Your task to perform on an android device: Search for "apple airpods pro" on costco, select the first entry, add it to the cart, then select checkout. Image 0: 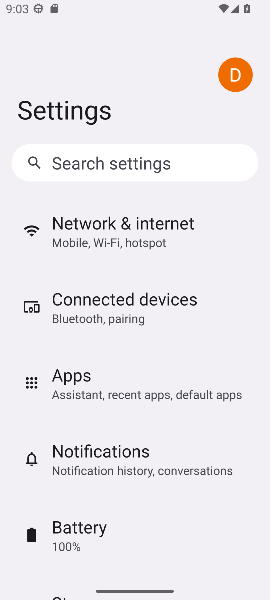
Step 0: press home button
Your task to perform on an android device: Search for "apple airpods pro" on costco, select the first entry, add it to the cart, then select checkout. Image 1: 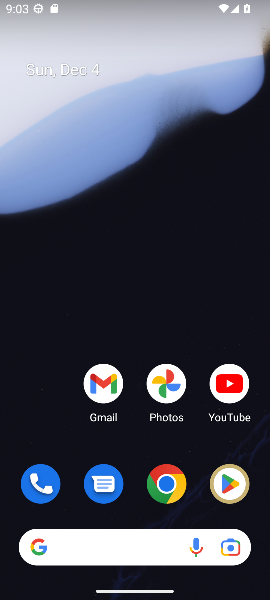
Step 1: click (166, 485)
Your task to perform on an android device: Search for "apple airpods pro" on costco, select the first entry, add it to the cart, then select checkout. Image 2: 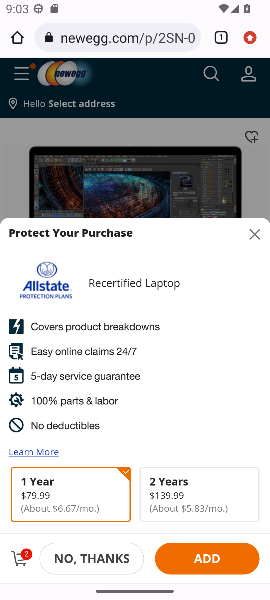
Step 2: click (117, 36)
Your task to perform on an android device: Search for "apple airpods pro" on costco, select the first entry, add it to the cart, then select checkout. Image 3: 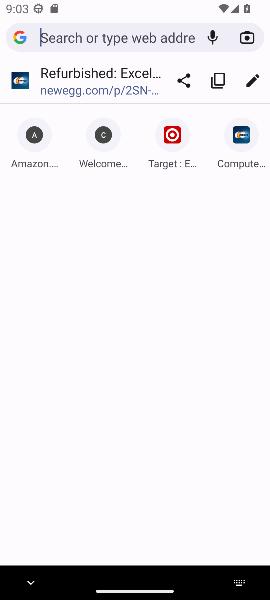
Step 3: type "costco.com"
Your task to perform on an android device: Search for "apple airpods pro" on costco, select the first entry, add it to the cart, then select checkout. Image 4: 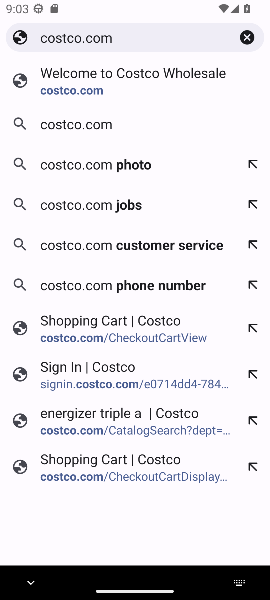
Step 4: click (64, 90)
Your task to perform on an android device: Search for "apple airpods pro" on costco, select the first entry, add it to the cart, then select checkout. Image 5: 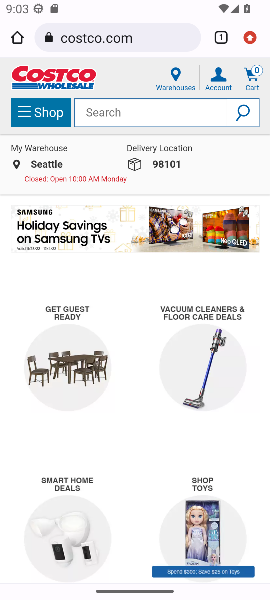
Step 5: click (135, 120)
Your task to perform on an android device: Search for "apple airpods pro" on costco, select the first entry, add it to the cart, then select checkout. Image 6: 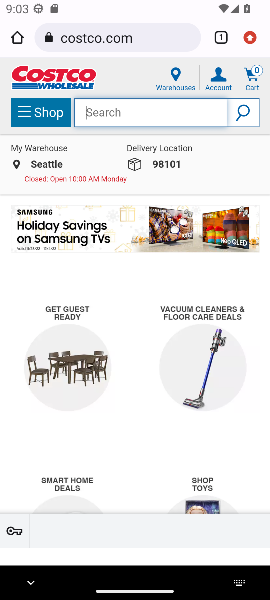
Step 6: type "apple airpods pro"
Your task to perform on an android device: Search for "apple airpods pro" on costco, select the first entry, add it to the cart, then select checkout. Image 7: 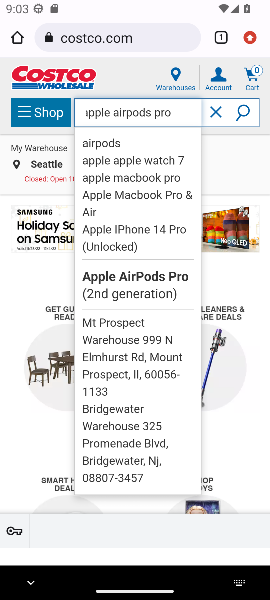
Step 7: click (242, 114)
Your task to perform on an android device: Search for "apple airpods pro" on costco, select the first entry, add it to the cart, then select checkout. Image 8: 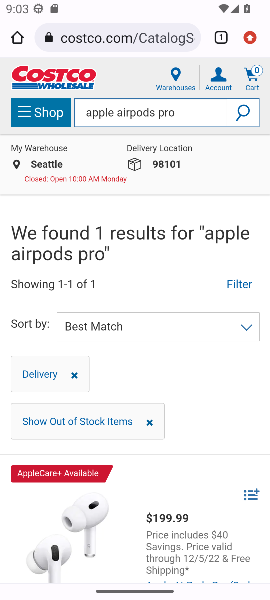
Step 8: drag from (184, 464) to (173, 264)
Your task to perform on an android device: Search for "apple airpods pro" on costco, select the first entry, add it to the cart, then select checkout. Image 9: 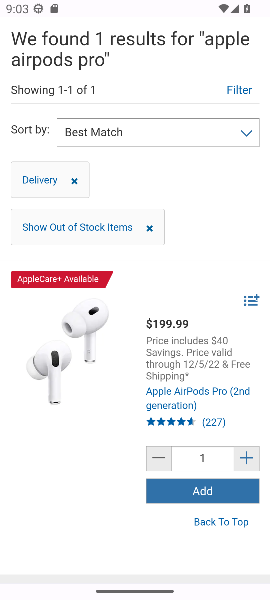
Step 9: click (174, 349)
Your task to perform on an android device: Search for "apple airpods pro" on costco, select the first entry, add it to the cart, then select checkout. Image 10: 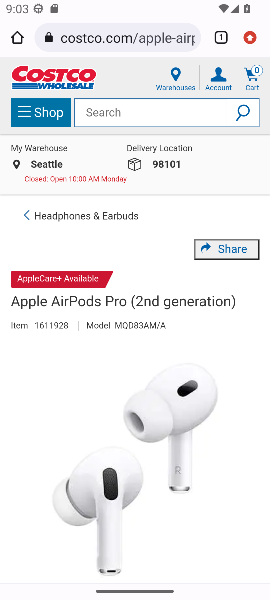
Step 10: drag from (161, 496) to (136, 164)
Your task to perform on an android device: Search for "apple airpods pro" on costco, select the first entry, add it to the cart, then select checkout. Image 11: 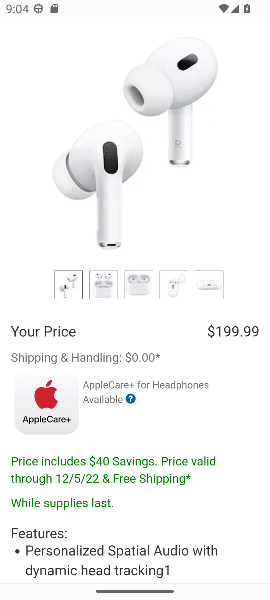
Step 11: drag from (141, 451) to (136, 251)
Your task to perform on an android device: Search for "apple airpods pro" on costco, select the first entry, add it to the cart, then select checkout. Image 12: 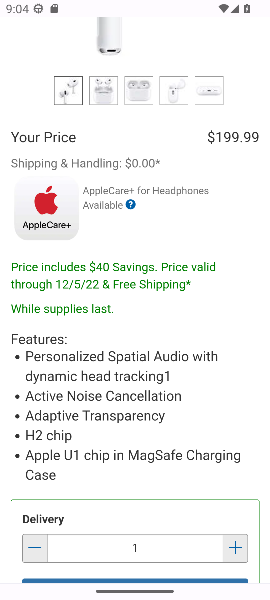
Step 12: drag from (157, 484) to (163, 363)
Your task to perform on an android device: Search for "apple airpods pro" on costco, select the first entry, add it to the cart, then select checkout. Image 13: 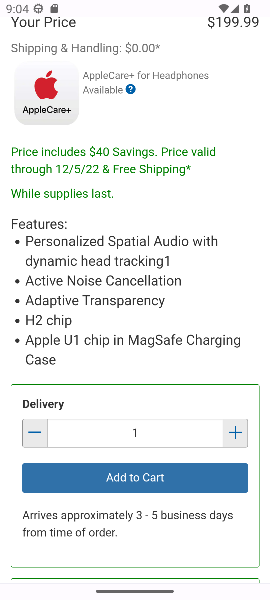
Step 13: click (126, 482)
Your task to perform on an android device: Search for "apple airpods pro" on costco, select the first entry, add it to the cart, then select checkout. Image 14: 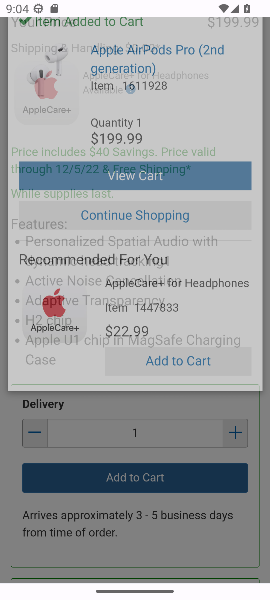
Step 14: drag from (152, 162) to (152, 403)
Your task to perform on an android device: Search for "apple airpods pro" on costco, select the first entry, add it to the cart, then select checkout. Image 15: 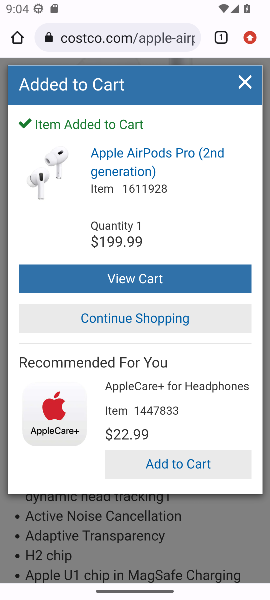
Step 15: click (121, 278)
Your task to perform on an android device: Search for "apple airpods pro" on costco, select the first entry, add it to the cart, then select checkout. Image 16: 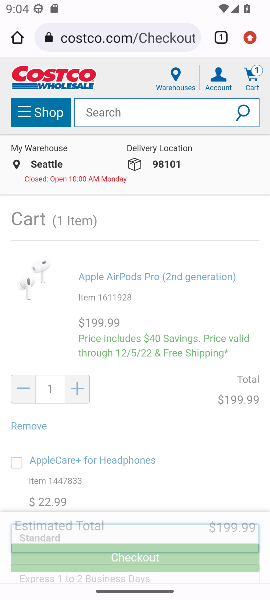
Step 16: click (161, 566)
Your task to perform on an android device: Search for "apple airpods pro" on costco, select the first entry, add it to the cart, then select checkout. Image 17: 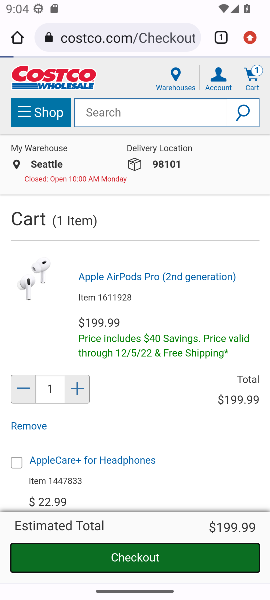
Step 17: click (161, 564)
Your task to perform on an android device: Search for "apple airpods pro" on costco, select the first entry, add it to the cart, then select checkout. Image 18: 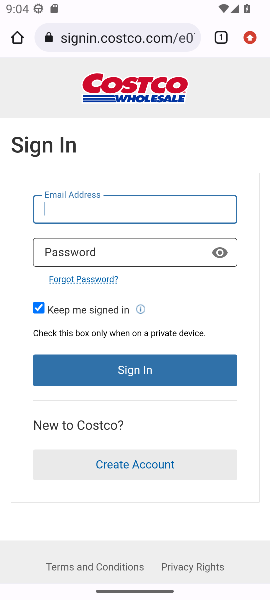
Step 18: task complete